Your task to perform on an android device: turn on the 24-hour format for clock Image 0: 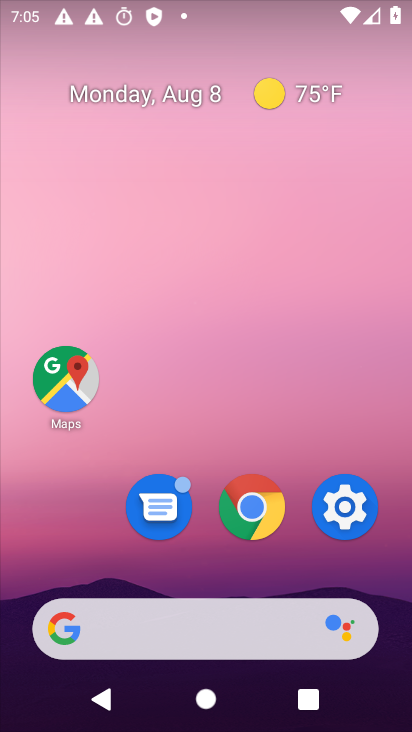
Step 0: drag from (309, 668) to (215, 153)
Your task to perform on an android device: turn on the 24-hour format for clock Image 1: 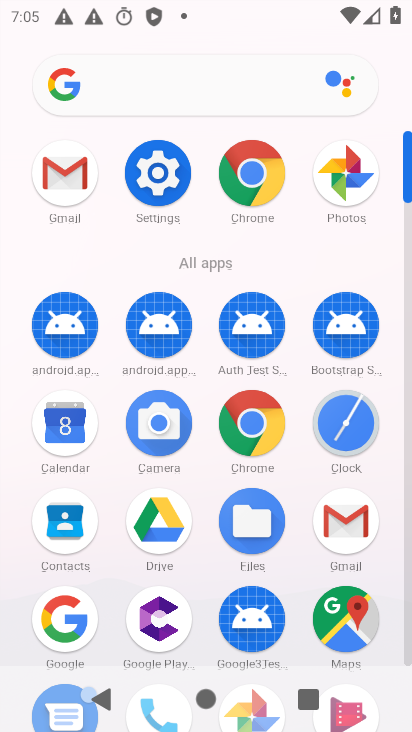
Step 1: click (337, 436)
Your task to perform on an android device: turn on the 24-hour format for clock Image 2: 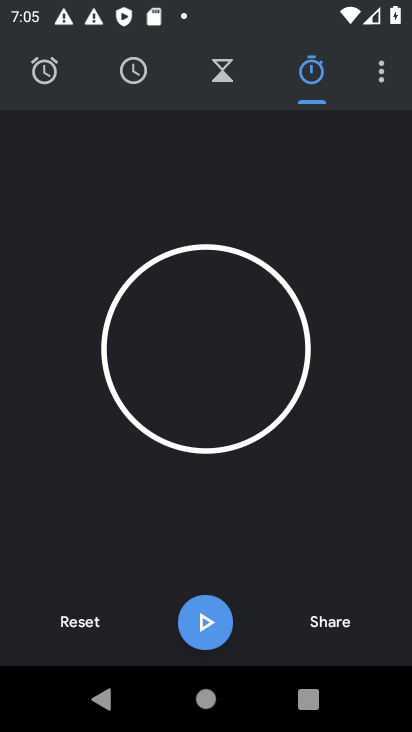
Step 2: click (368, 88)
Your task to perform on an android device: turn on the 24-hour format for clock Image 3: 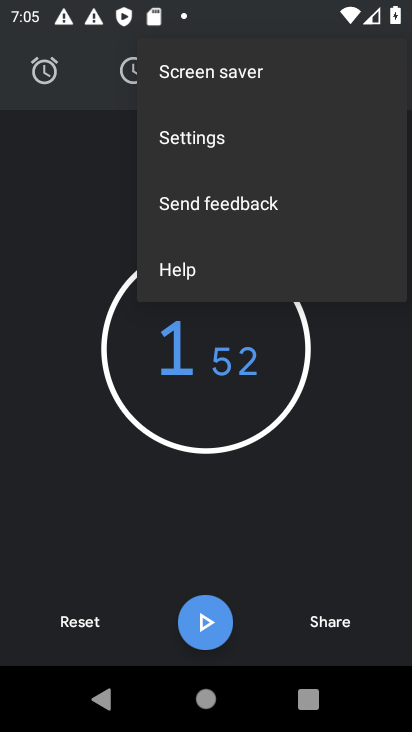
Step 3: click (245, 142)
Your task to perform on an android device: turn on the 24-hour format for clock Image 4: 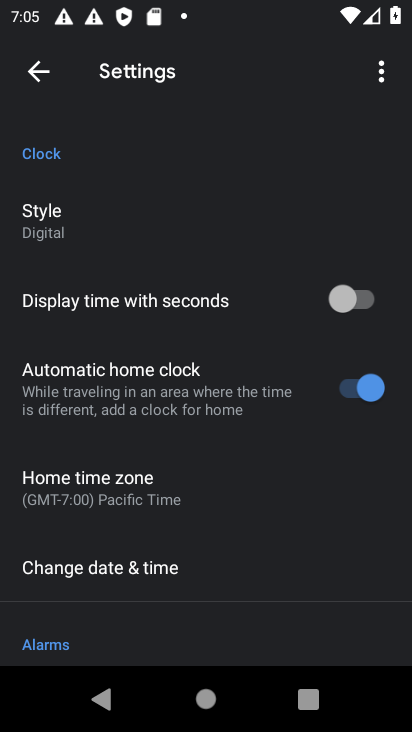
Step 4: click (110, 569)
Your task to perform on an android device: turn on the 24-hour format for clock Image 5: 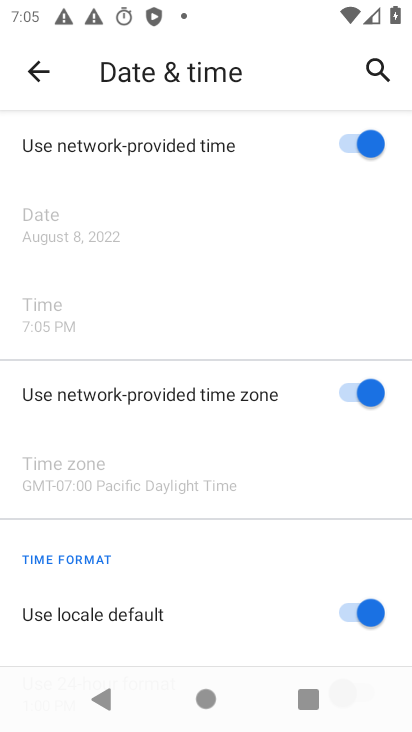
Step 5: drag from (324, 549) to (312, 184)
Your task to perform on an android device: turn on the 24-hour format for clock Image 6: 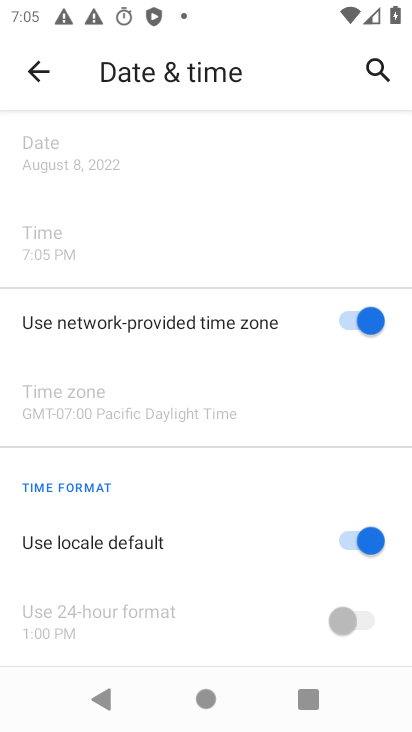
Step 6: click (362, 528)
Your task to perform on an android device: turn on the 24-hour format for clock Image 7: 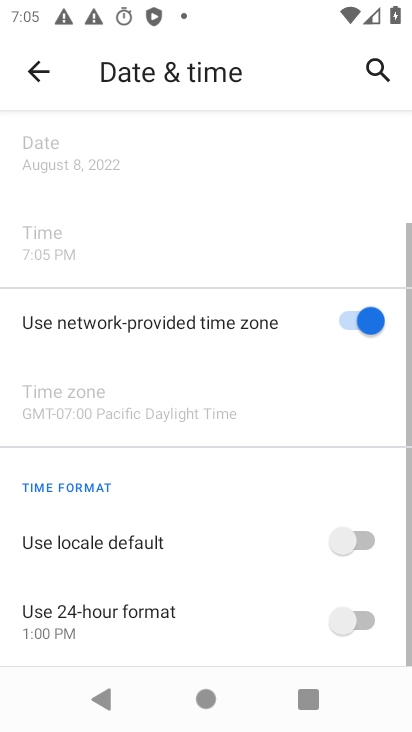
Step 7: click (349, 627)
Your task to perform on an android device: turn on the 24-hour format for clock Image 8: 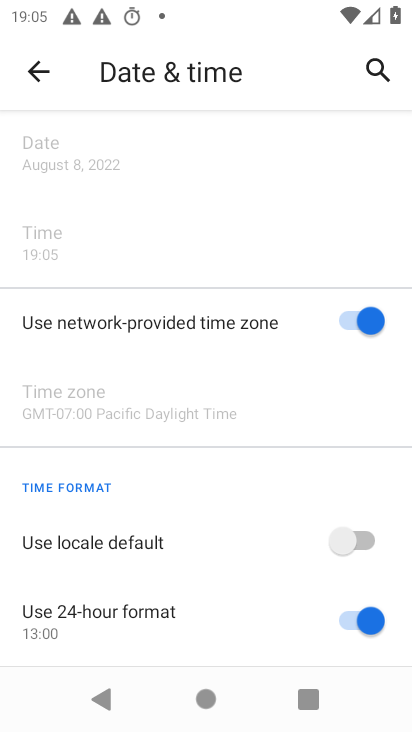
Step 8: task complete